Your task to perform on an android device: Open battery settings Image 0: 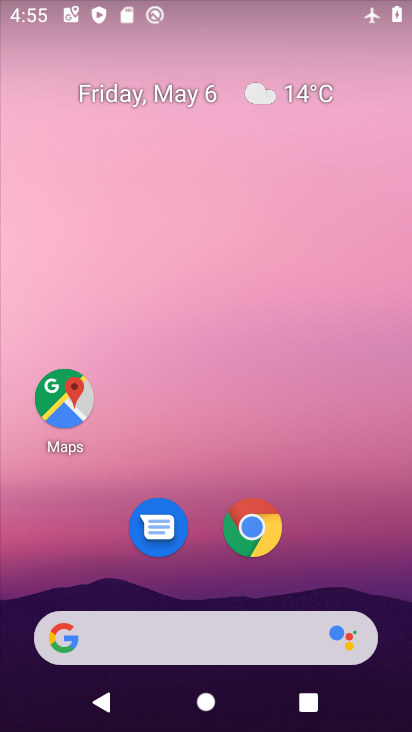
Step 0: drag from (205, 726) to (196, 31)
Your task to perform on an android device: Open battery settings Image 1: 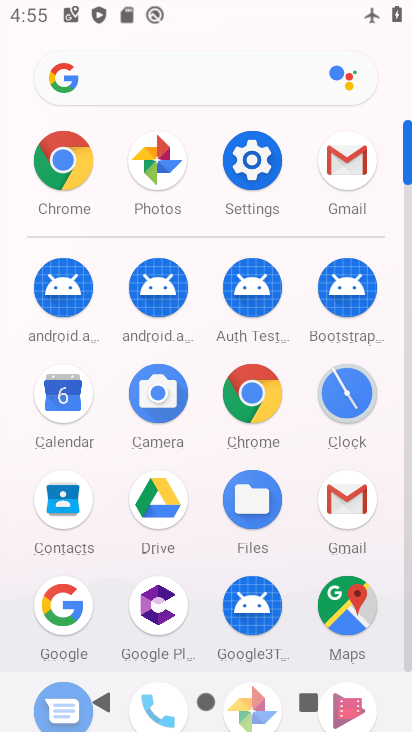
Step 1: click (254, 152)
Your task to perform on an android device: Open battery settings Image 2: 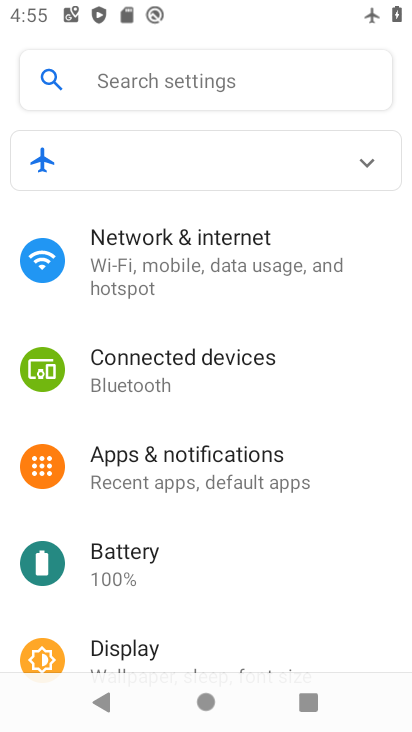
Step 2: drag from (164, 646) to (149, 444)
Your task to perform on an android device: Open battery settings Image 3: 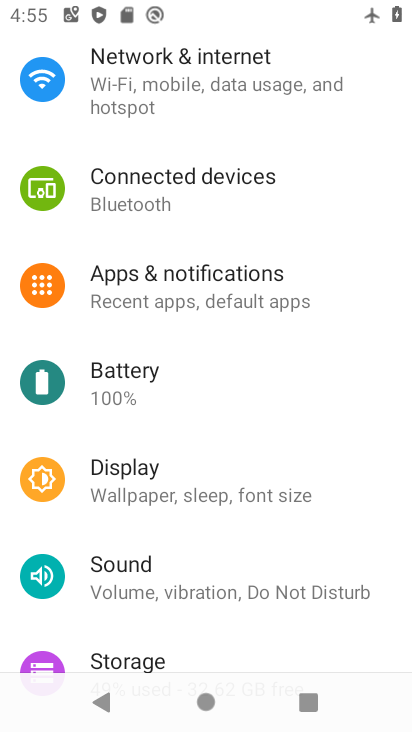
Step 3: click (120, 379)
Your task to perform on an android device: Open battery settings Image 4: 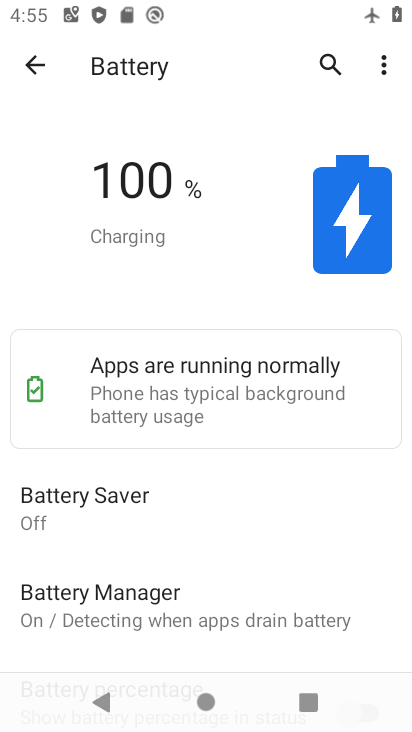
Step 4: task complete